Your task to perform on an android device: Go to privacy settings Image 0: 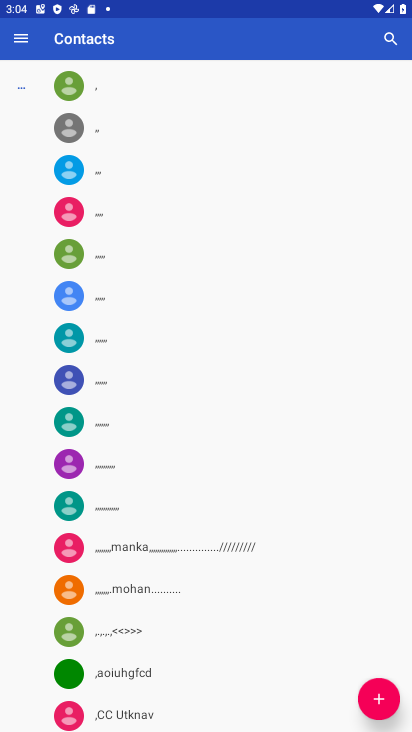
Step 0: press home button
Your task to perform on an android device: Go to privacy settings Image 1: 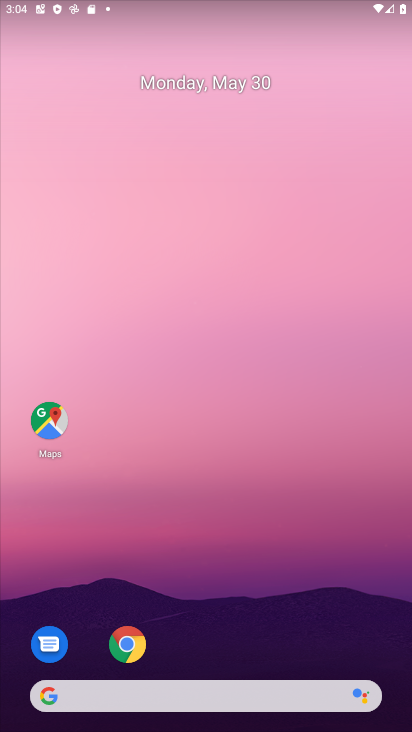
Step 1: drag from (261, 651) to (192, 9)
Your task to perform on an android device: Go to privacy settings Image 2: 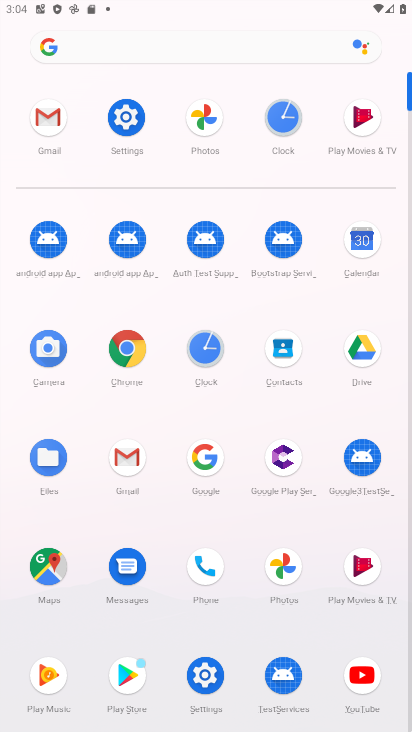
Step 2: click (121, 110)
Your task to perform on an android device: Go to privacy settings Image 3: 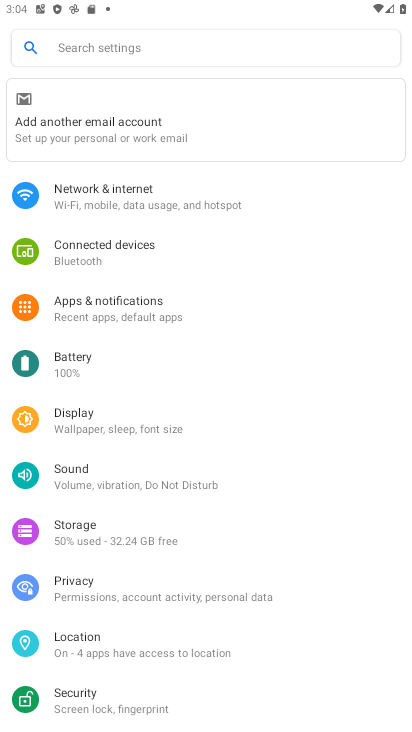
Step 3: click (149, 602)
Your task to perform on an android device: Go to privacy settings Image 4: 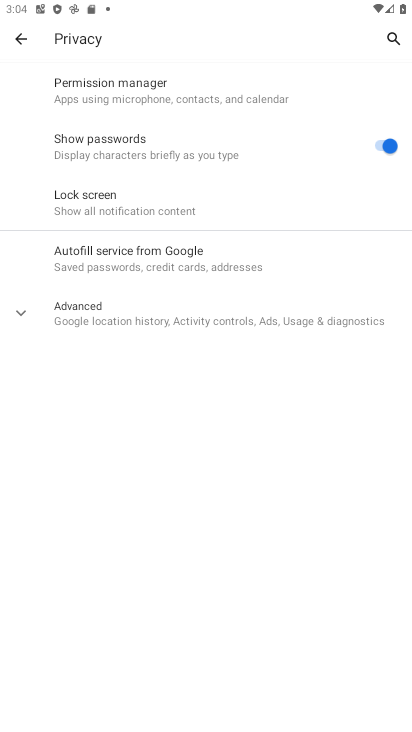
Step 4: task complete